Your task to perform on an android device: Open Maps and search for coffee Image 0: 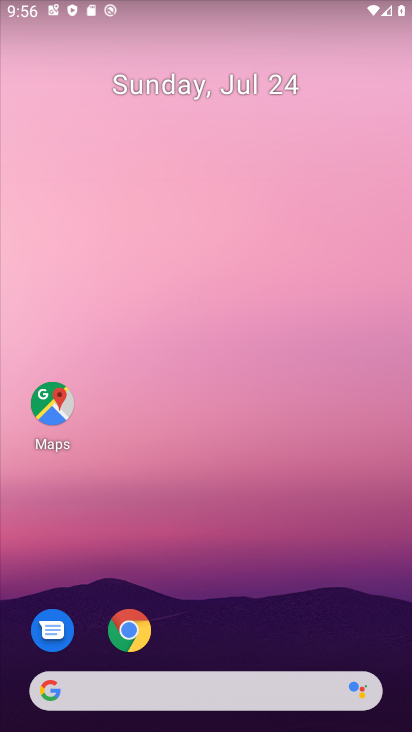
Step 0: click (57, 431)
Your task to perform on an android device: Open Maps and search for coffee Image 1: 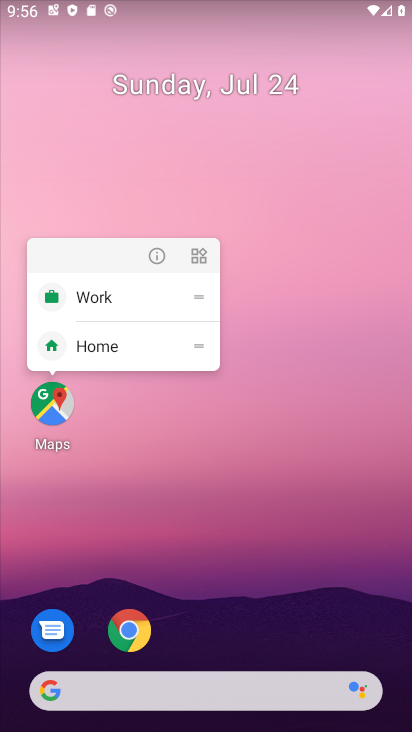
Step 1: click (57, 431)
Your task to perform on an android device: Open Maps and search for coffee Image 2: 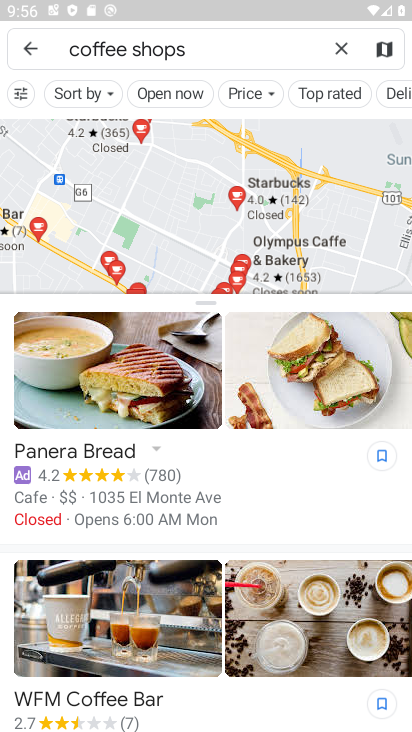
Step 2: task complete